Your task to perform on an android device: turn off priority inbox in the gmail app Image 0: 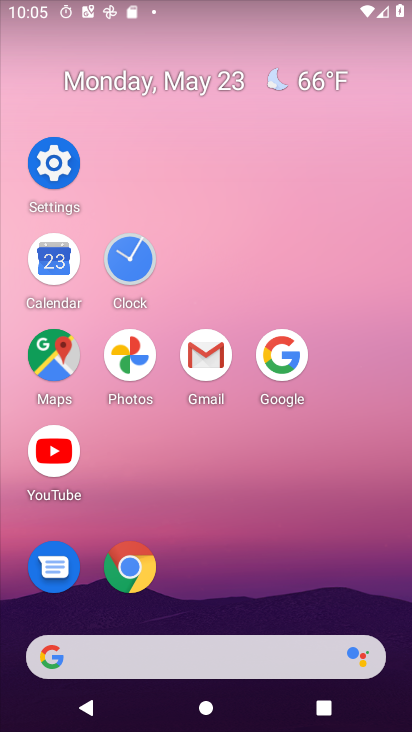
Step 0: click (193, 357)
Your task to perform on an android device: turn off priority inbox in the gmail app Image 1: 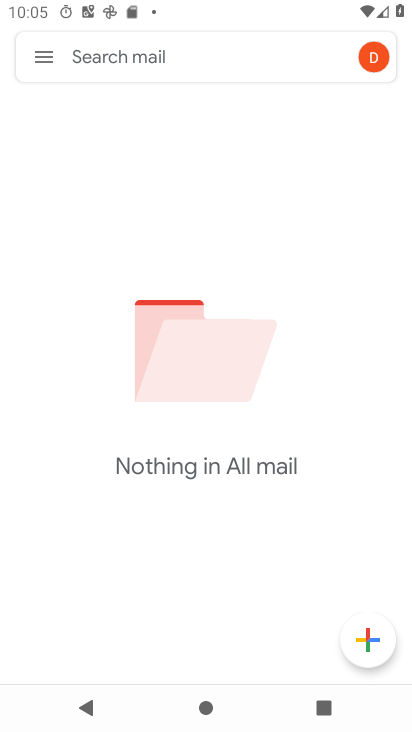
Step 1: click (49, 69)
Your task to perform on an android device: turn off priority inbox in the gmail app Image 2: 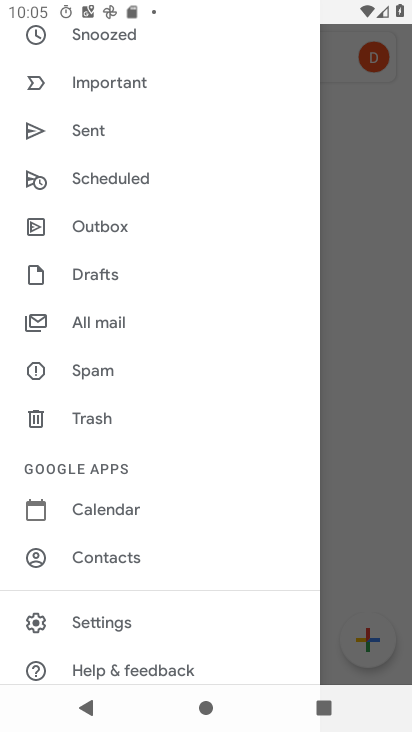
Step 2: click (128, 618)
Your task to perform on an android device: turn off priority inbox in the gmail app Image 3: 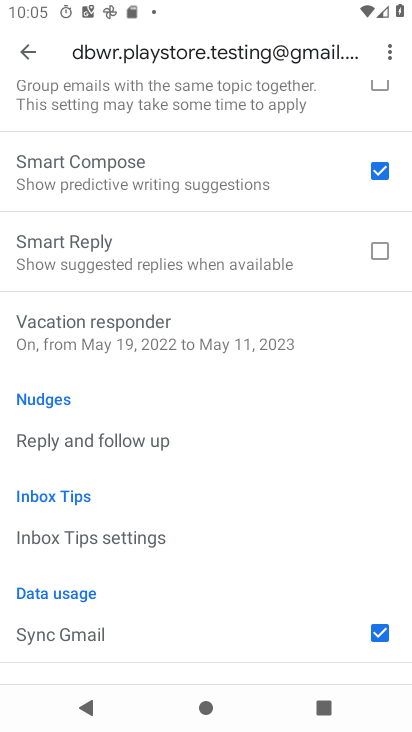
Step 3: drag from (238, 239) to (177, 673)
Your task to perform on an android device: turn off priority inbox in the gmail app Image 4: 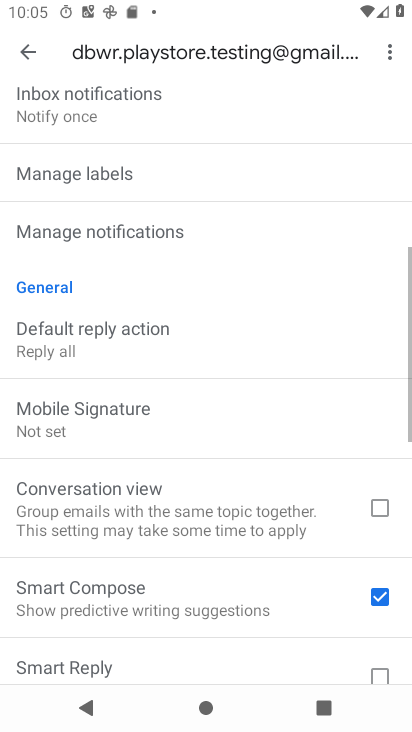
Step 4: drag from (164, 211) to (170, 549)
Your task to perform on an android device: turn off priority inbox in the gmail app Image 5: 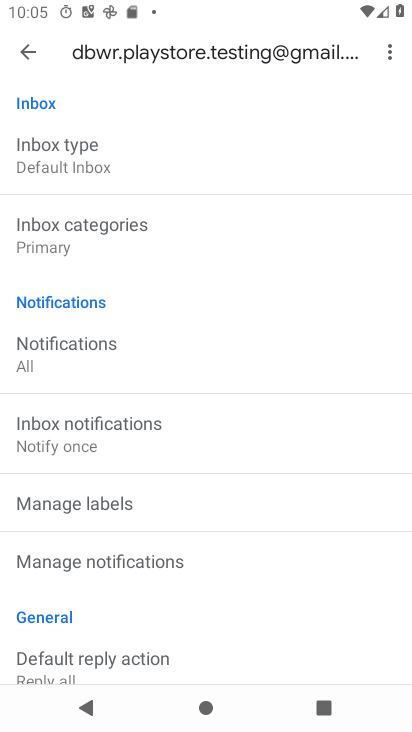
Step 5: click (108, 166)
Your task to perform on an android device: turn off priority inbox in the gmail app Image 6: 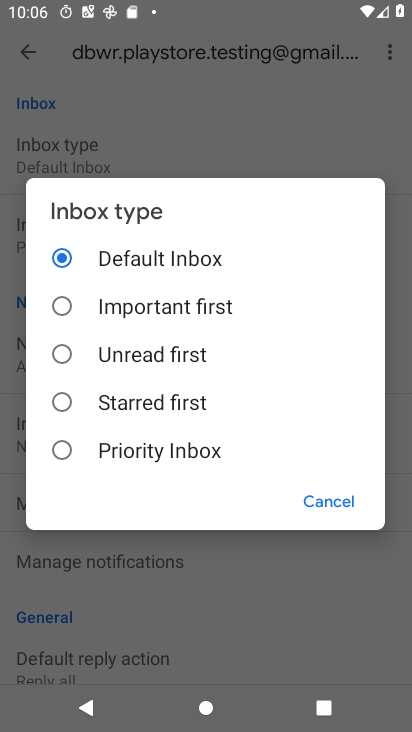
Step 6: task complete